Your task to perform on an android device: Open Chrome and go to the settings page Image 0: 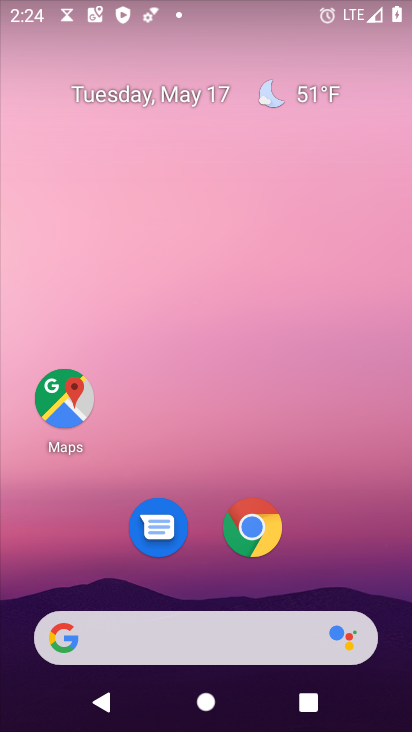
Step 0: click (253, 525)
Your task to perform on an android device: Open Chrome and go to the settings page Image 1: 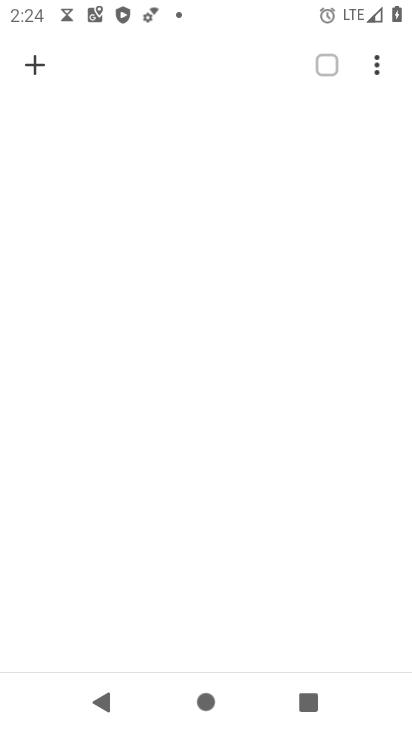
Step 1: click (376, 61)
Your task to perform on an android device: Open Chrome and go to the settings page Image 2: 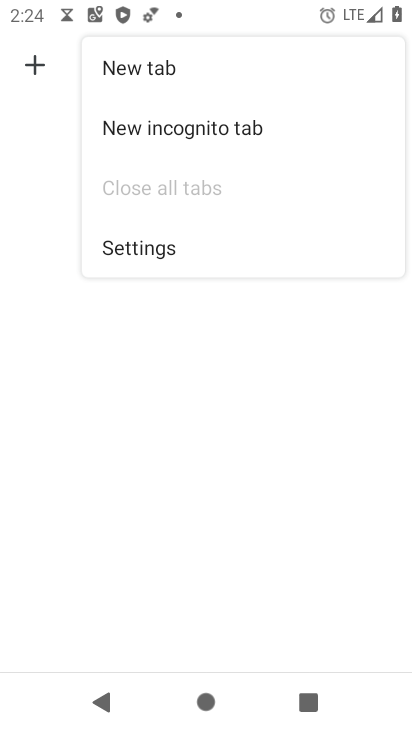
Step 2: click (130, 240)
Your task to perform on an android device: Open Chrome and go to the settings page Image 3: 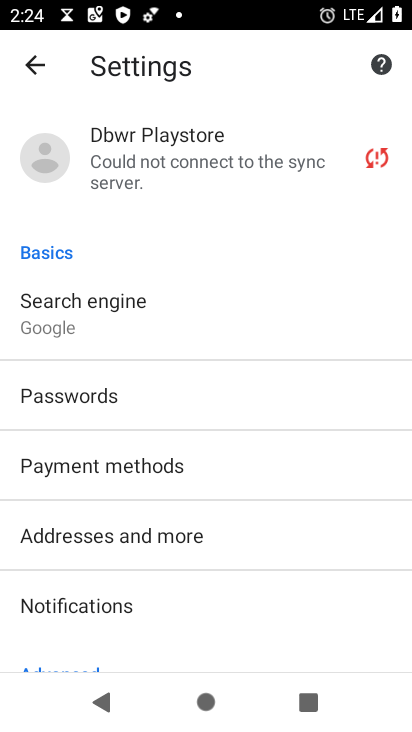
Step 3: task complete